Your task to perform on an android device: Open maps Image 0: 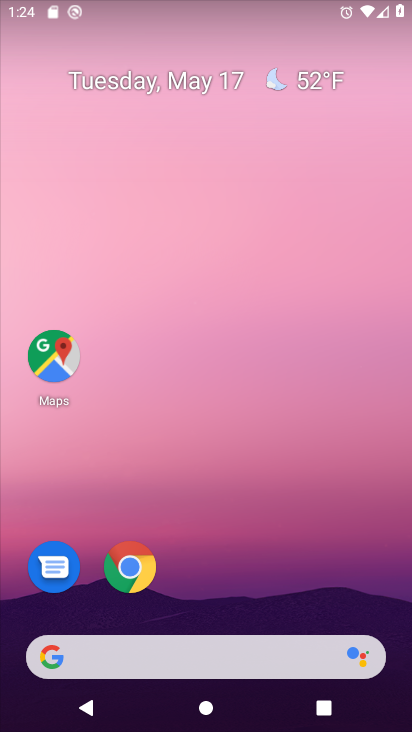
Step 0: drag from (209, 226) to (213, 88)
Your task to perform on an android device: Open maps Image 1: 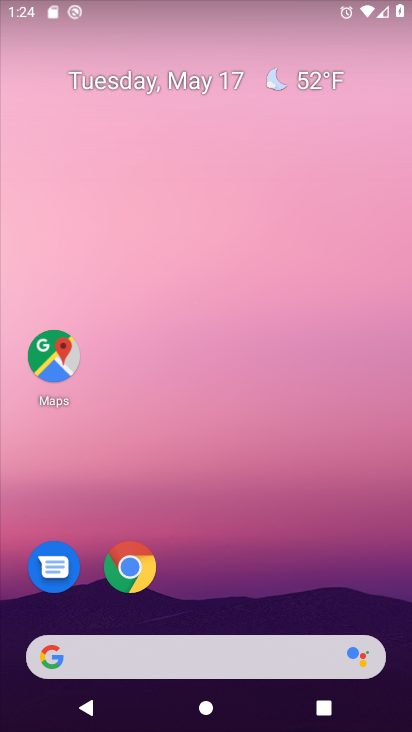
Step 1: press home button
Your task to perform on an android device: Open maps Image 2: 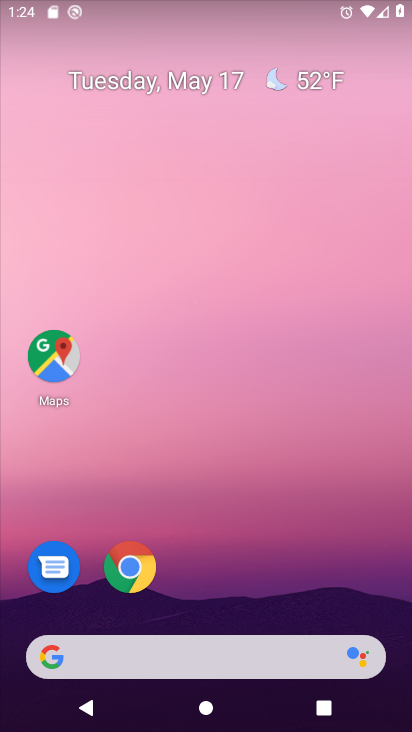
Step 2: click (68, 358)
Your task to perform on an android device: Open maps Image 3: 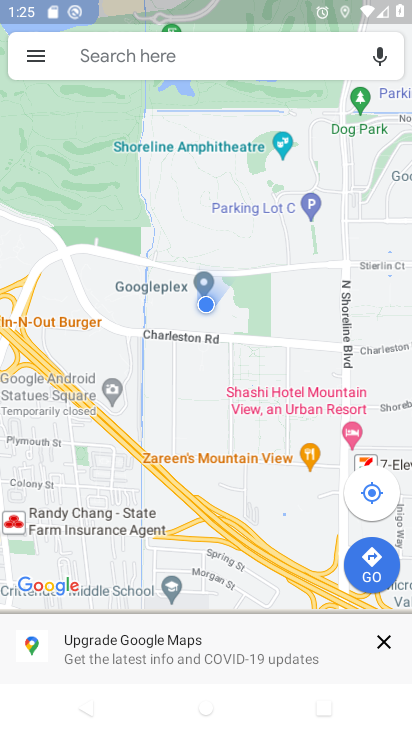
Step 3: task complete